Your task to perform on an android device: Open Google Chrome and open the bookmarks view Image 0: 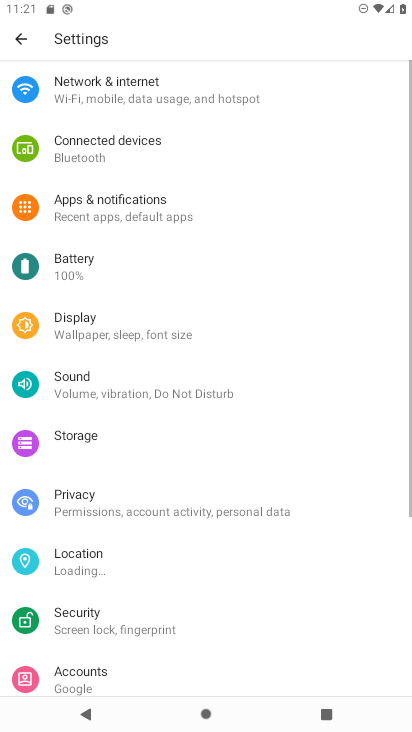
Step 0: press home button
Your task to perform on an android device: Open Google Chrome and open the bookmarks view Image 1: 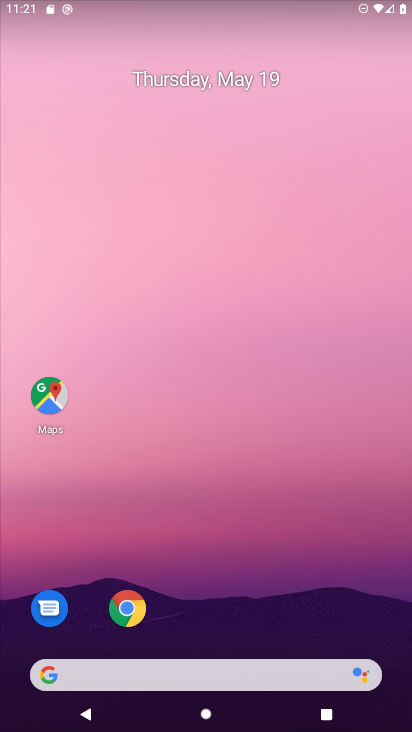
Step 1: click (126, 596)
Your task to perform on an android device: Open Google Chrome and open the bookmarks view Image 2: 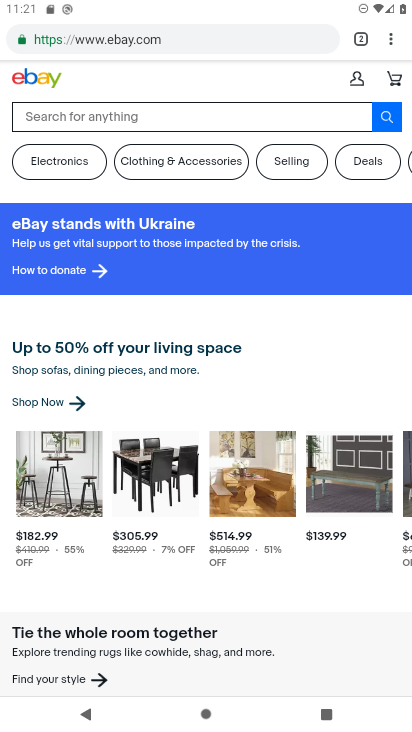
Step 2: task complete